Your task to perform on an android device: change alarm snooze length Image 0: 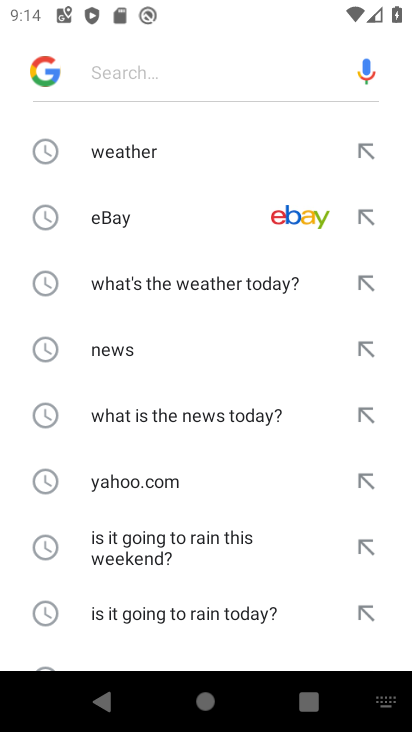
Step 0: press home button
Your task to perform on an android device: change alarm snooze length Image 1: 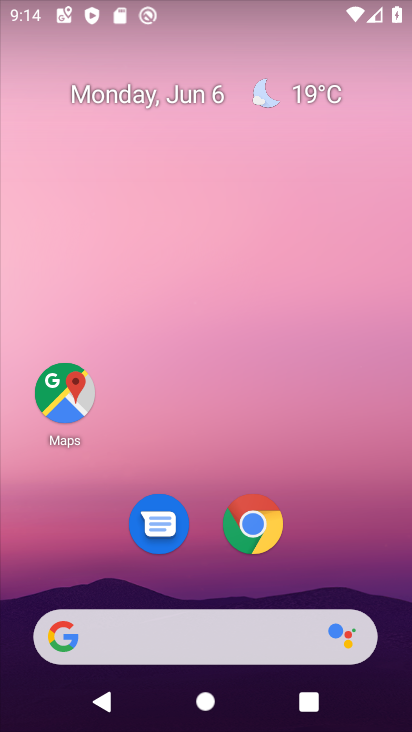
Step 1: drag from (245, 457) to (273, 24)
Your task to perform on an android device: change alarm snooze length Image 2: 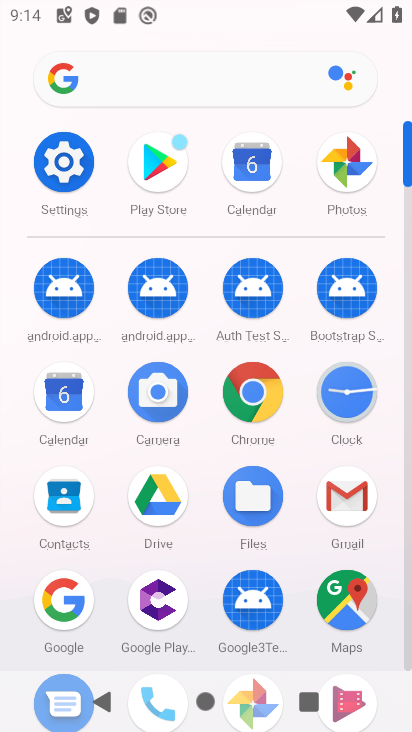
Step 2: click (354, 397)
Your task to perform on an android device: change alarm snooze length Image 3: 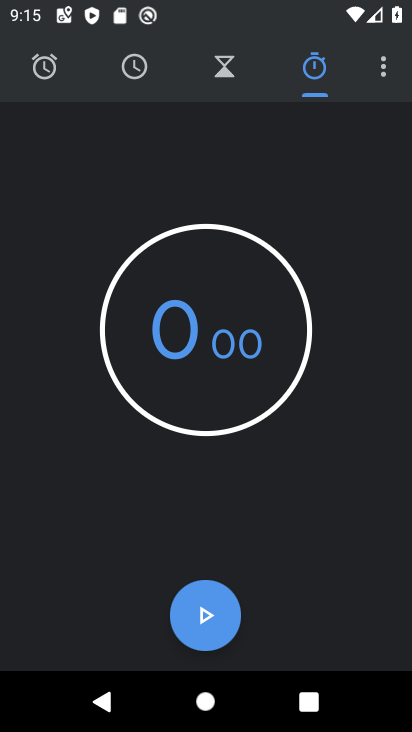
Step 3: click (373, 63)
Your task to perform on an android device: change alarm snooze length Image 4: 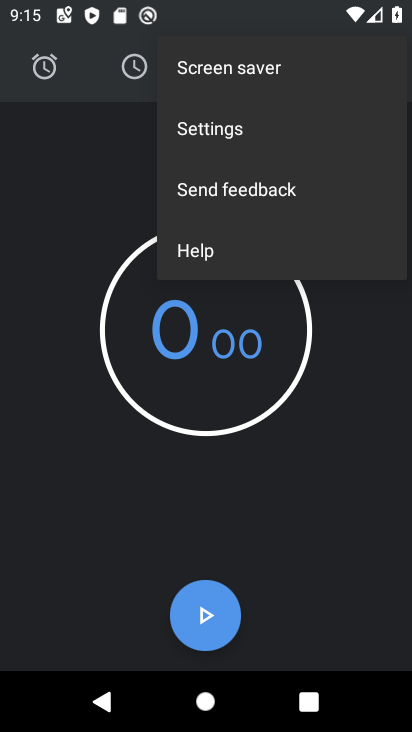
Step 4: click (309, 128)
Your task to perform on an android device: change alarm snooze length Image 5: 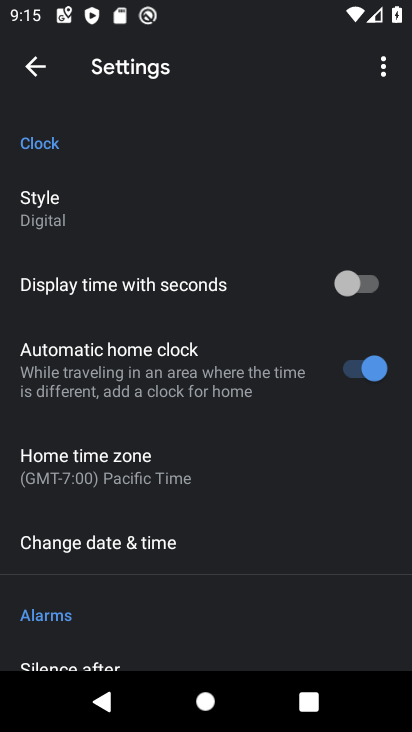
Step 5: drag from (256, 492) to (226, 184)
Your task to perform on an android device: change alarm snooze length Image 6: 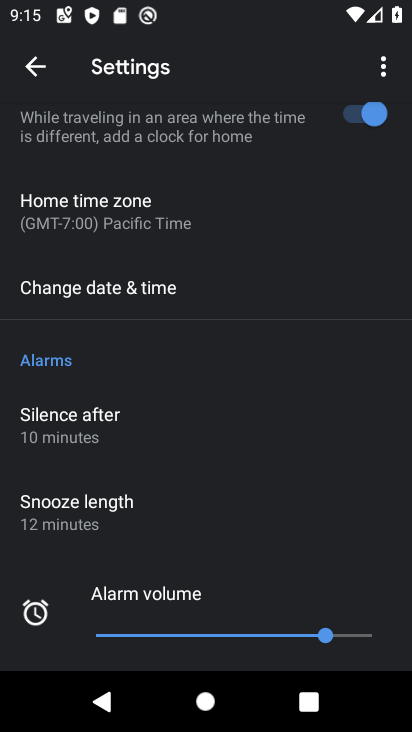
Step 6: click (160, 513)
Your task to perform on an android device: change alarm snooze length Image 7: 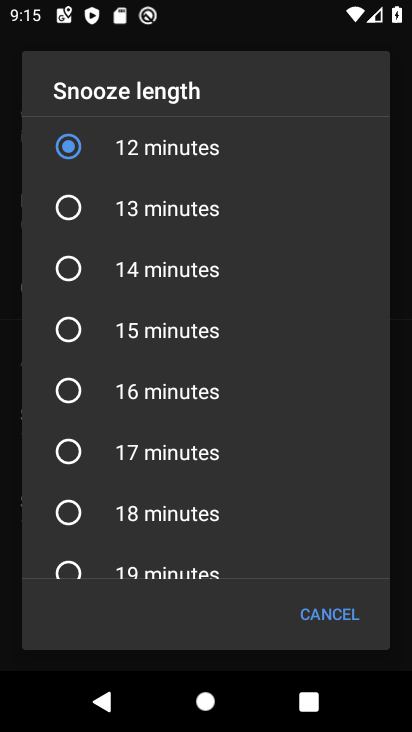
Step 7: click (138, 266)
Your task to perform on an android device: change alarm snooze length Image 8: 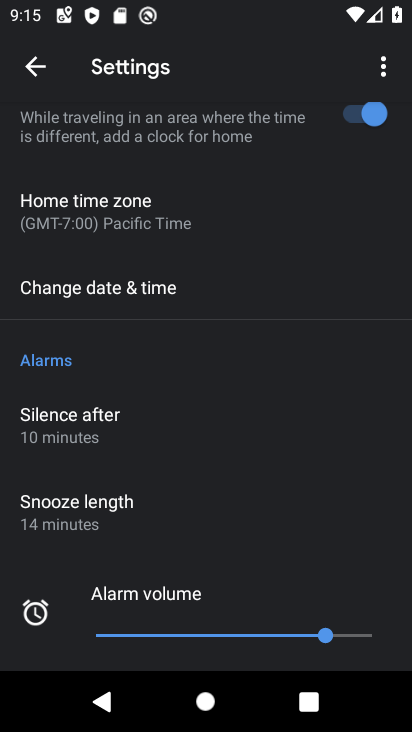
Step 8: task complete